Your task to perform on an android device: Open ESPN.com Image 0: 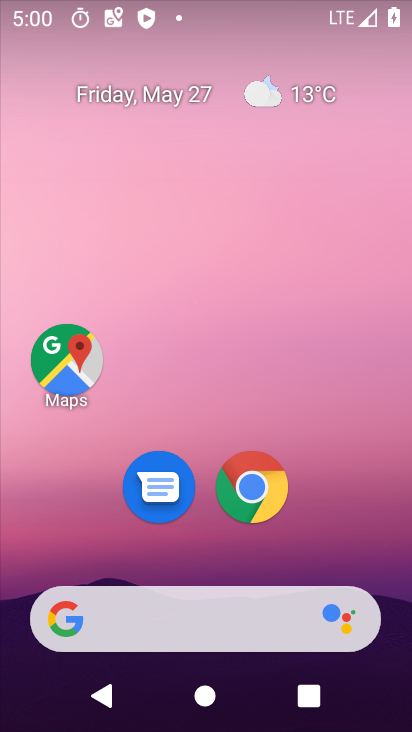
Step 0: click (261, 493)
Your task to perform on an android device: Open ESPN.com Image 1: 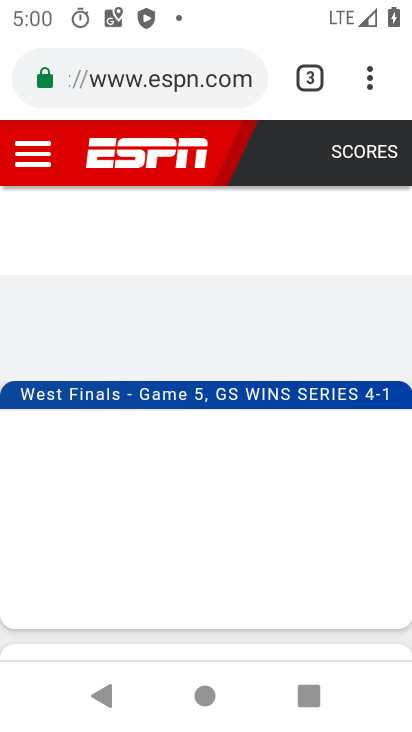
Step 1: task complete